Your task to perform on an android device: Show me popular videos on Youtube Image 0: 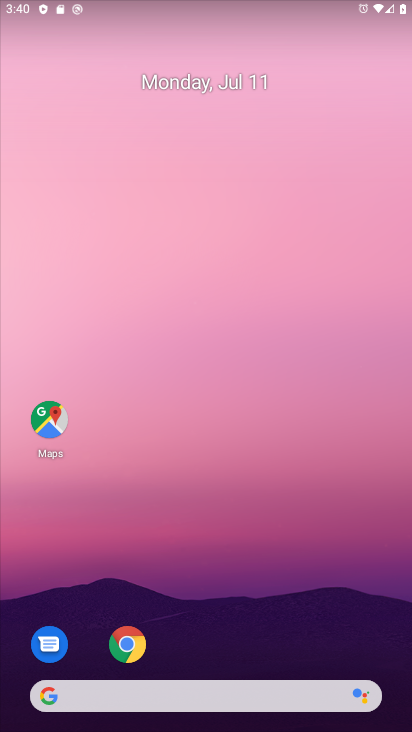
Step 0: drag from (328, 686) to (368, 0)
Your task to perform on an android device: Show me popular videos on Youtube Image 1: 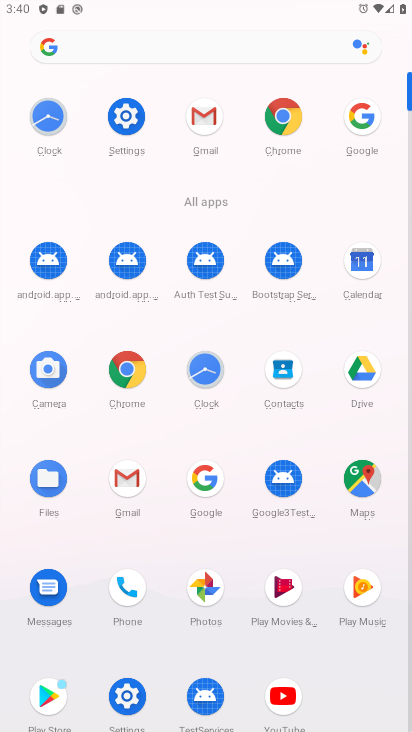
Step 1: click (275, 700)
Your task to perform on an android device: Show me popular videos on Youtube Image 2: 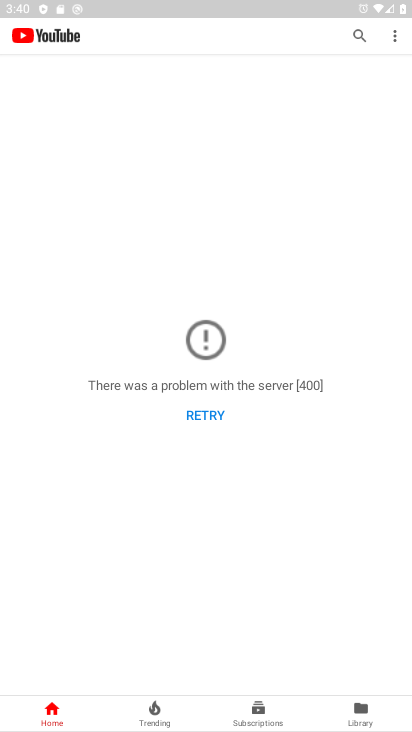
Step 2: click (205, 412)
Your task to perform on an android device: Show me popular videos on Youtube Image 3: 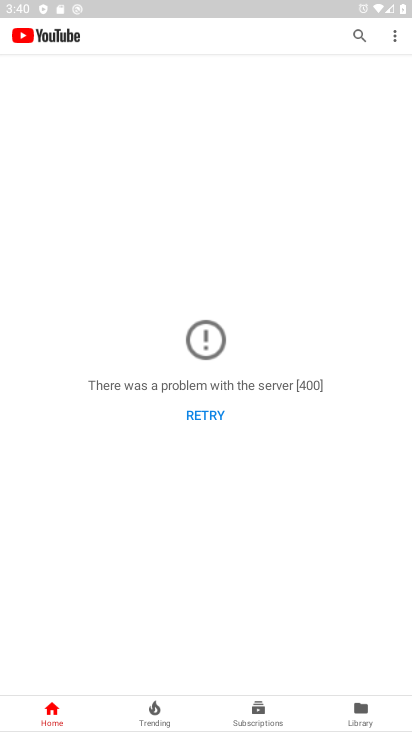
Step 3: click (213, 417)
Your task to perform on an android device: Show me popular videos on Youtube Image 4: 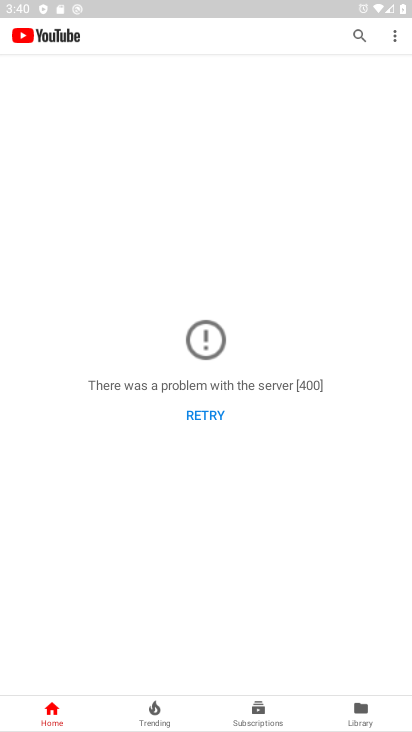
Step 4: task complete